Your task to perform on an android device: Turn on the flashlight Image 0: 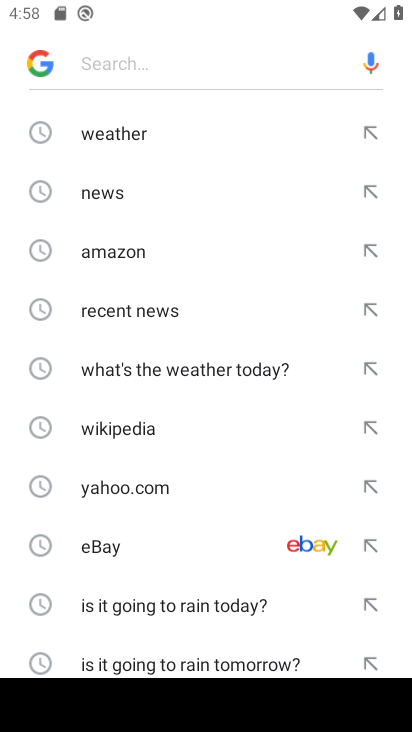
Step 0: press home button
Your task to perform on an android device: Turn on the flashlight Image 1: 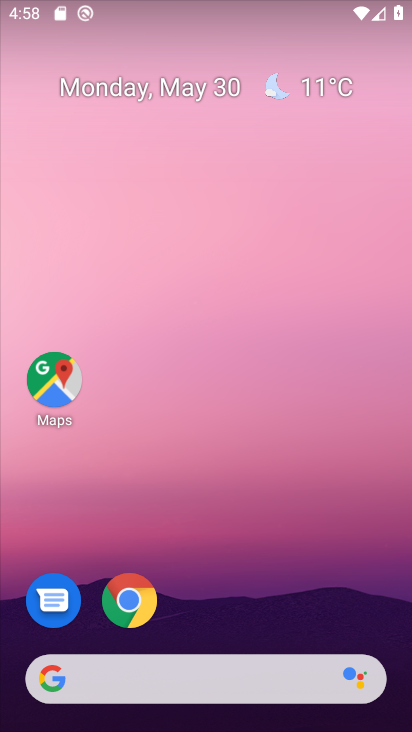
Step 1: drag from (289, 589) to (336, 136)
Your task to perform on an android device: Turn on the flashlight Image 2: 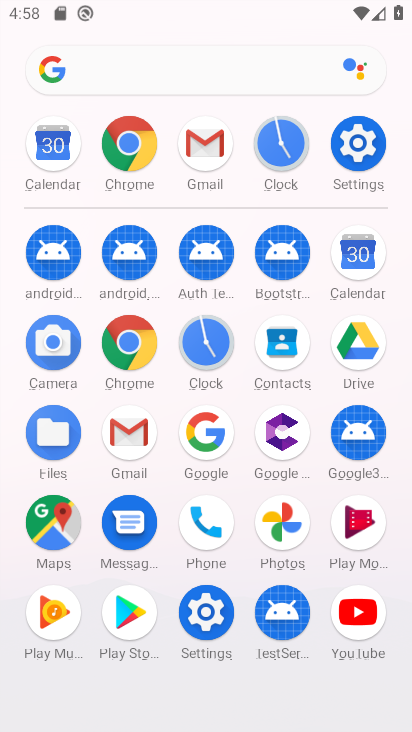
Step 2: click (360, 138)
Your task to perform on an android device: Turn on the flashlight Image 3: 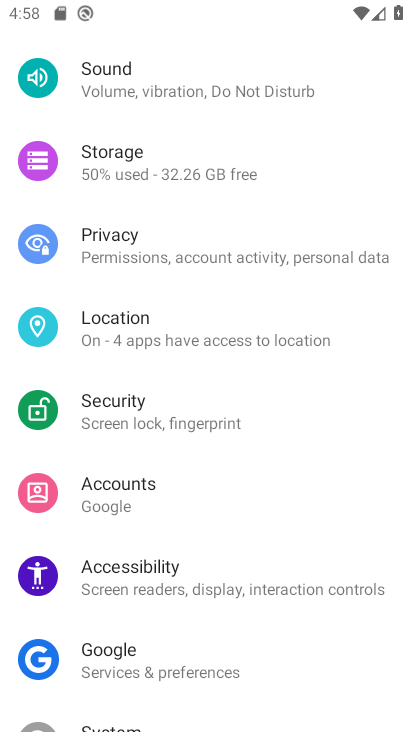
Step 3: task complete